Your task to perform on an android device: set the timer Image 0: 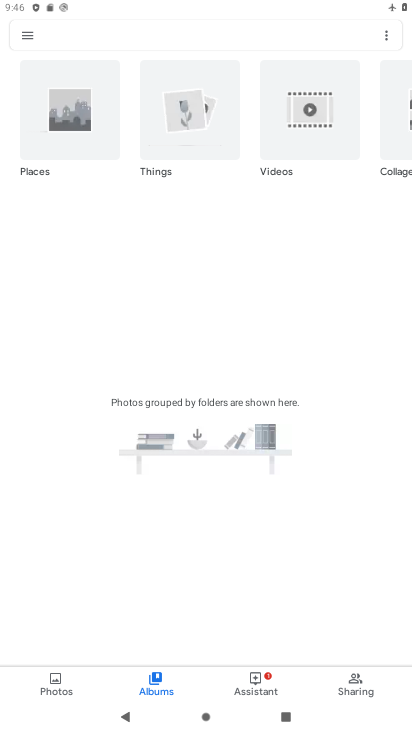
Step 0: press home button
Your task to perform on an android device: set the timer Image 1: 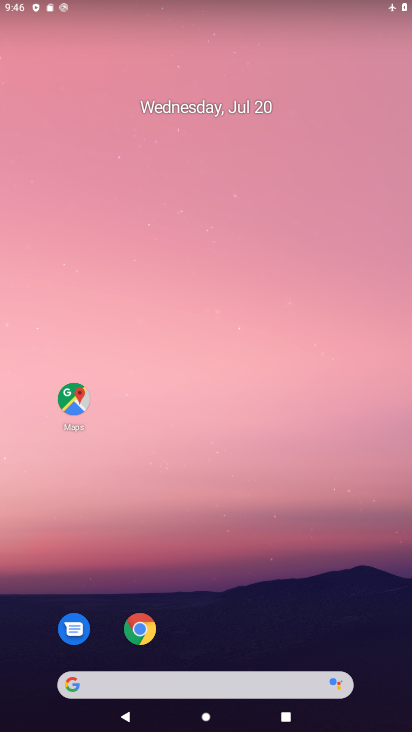
Step 1: drag from (313, 540) to (269, 38)
Your task to perform on an android device: set the timer Image 2: 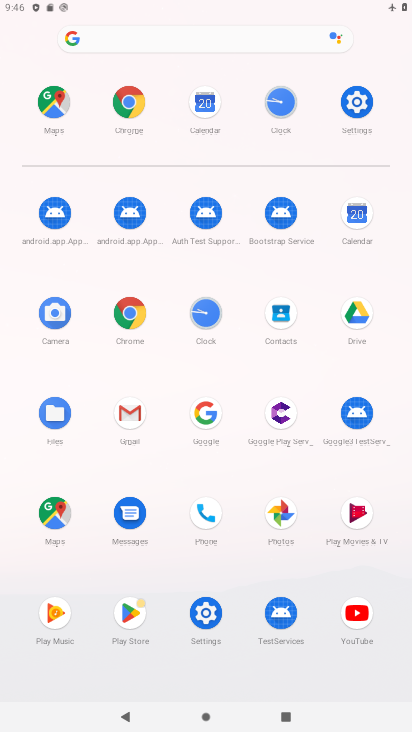
Step 2: click (213, 315)
Your task to perform on an android device: set the timer Image 3: 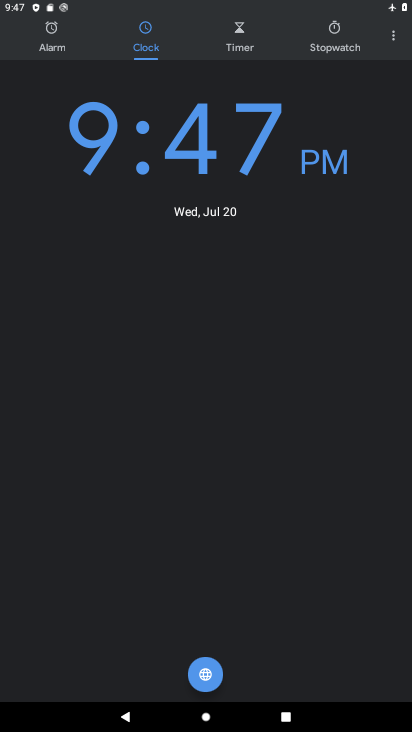
Step 3: click (235, 43)
Your task to perform on an android device: set the timer Image 4: 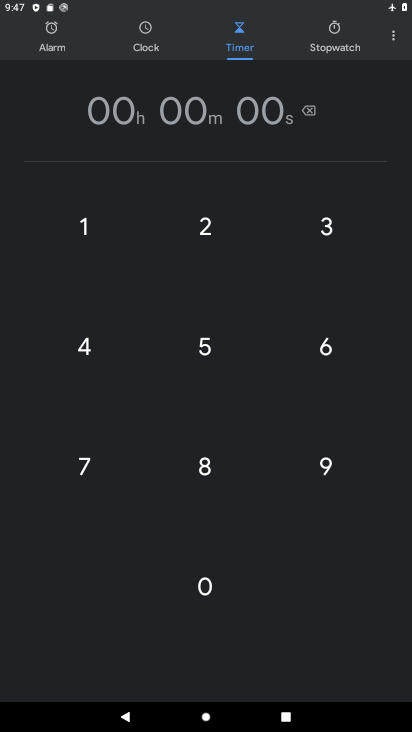
Step 4: click (195, 225)
Your task to perform on an android device: set the timer Image 5: 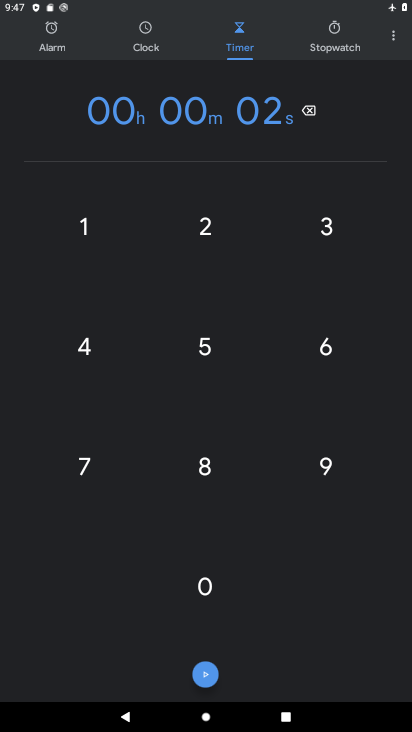
Step 5: click (218, 335)
Your task to perform on an android device: set the timer Image 6: 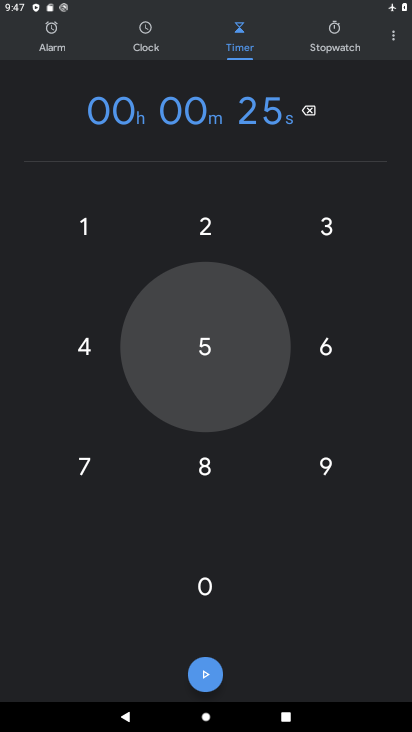
Step 6: click (208, 218)
Your task to perform on an android device: set the timer Image 7: 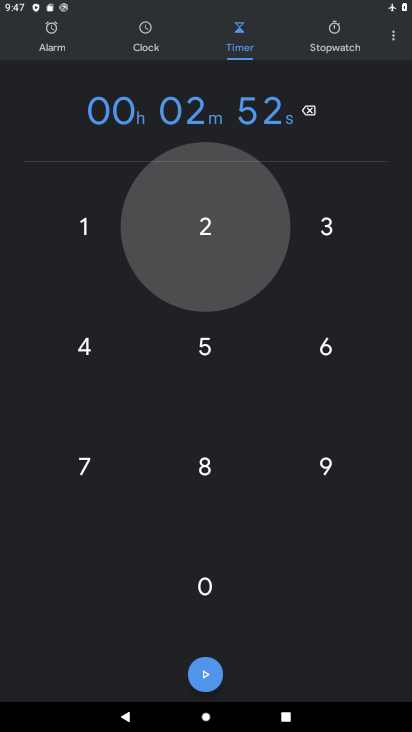
Step 7: click (205, 334)
Your task to perform on an android device: set the timer Image 8: 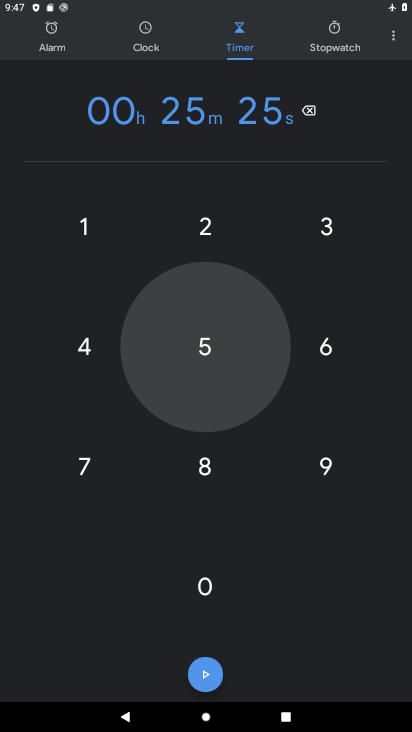
Step 8: click (186, 245)
Your task to perform on an android device: set the timer Image 9: 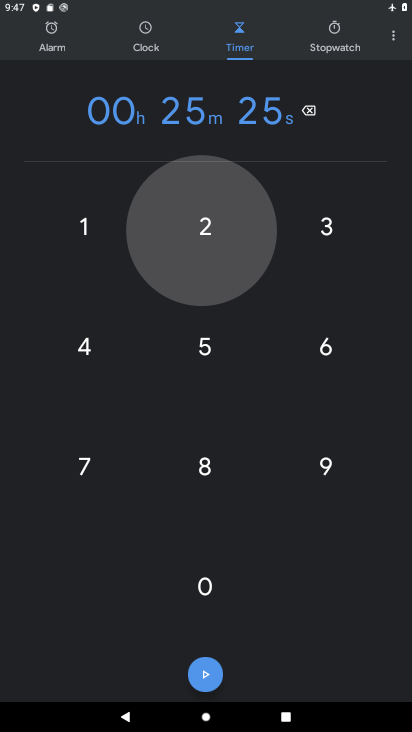
Step 9: click (191, 332)
Your task to perform on an android device: set the timer Image 10: 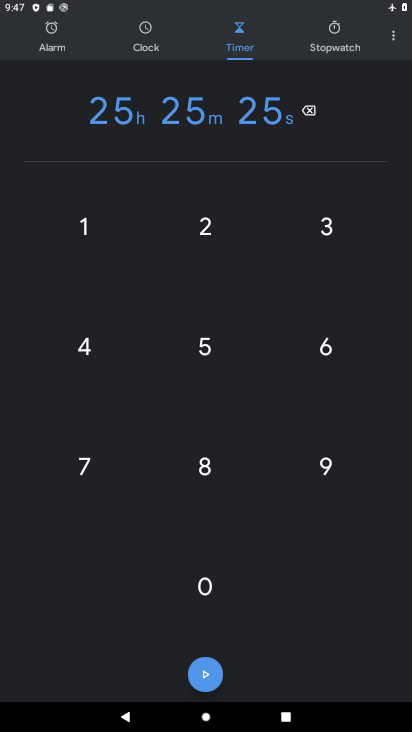
Step 10: click (202, 670)
Your task to perform on an android device: set the timer Image 11: 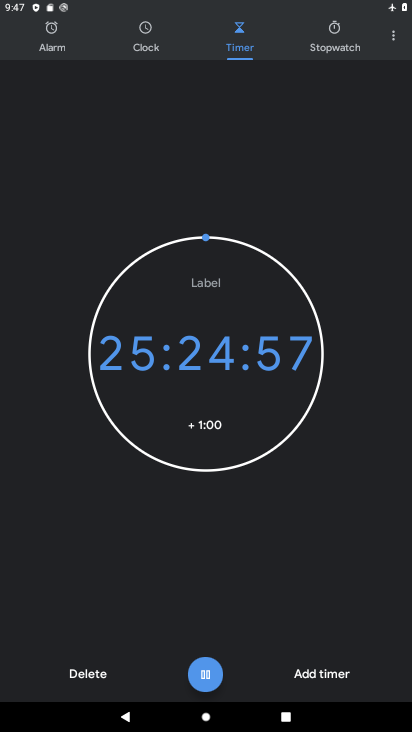
Step 11: task complete